Your task to perform on an android device: Show me recent news Image 0: 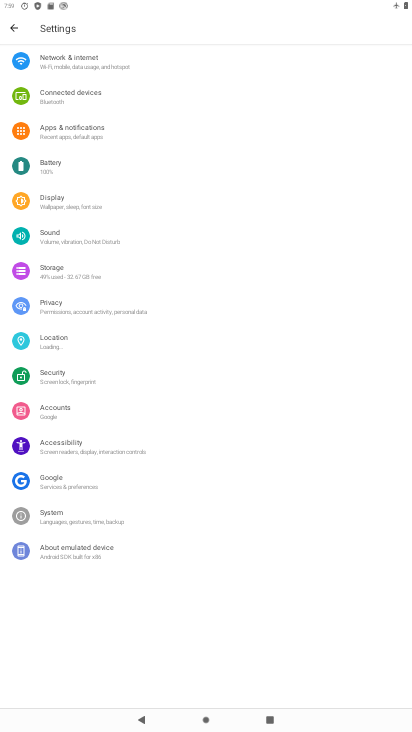
Step 0: press home button
Your task to perform on an android device: Show me recent news Image 1: 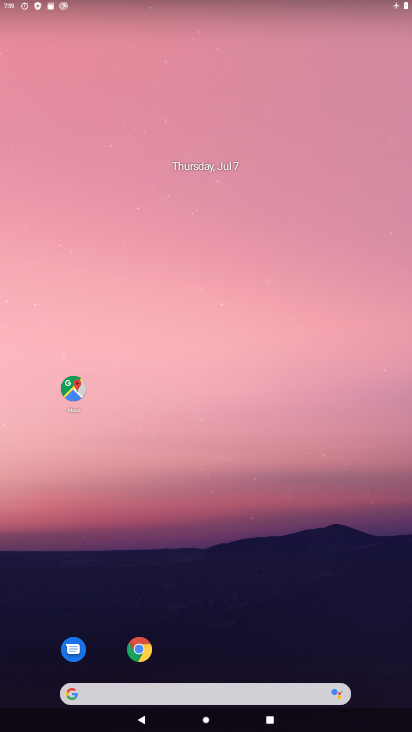
Step 1: task complete